Your task to perform on an android device: Open battery settings Image 0: 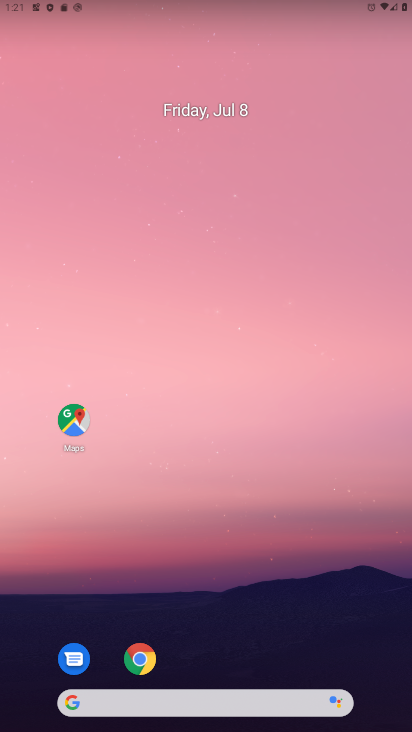
Step 0: drag from (275, 554) to (205, 131)
Your task to perform on an android device: Open battery settings Image 1: 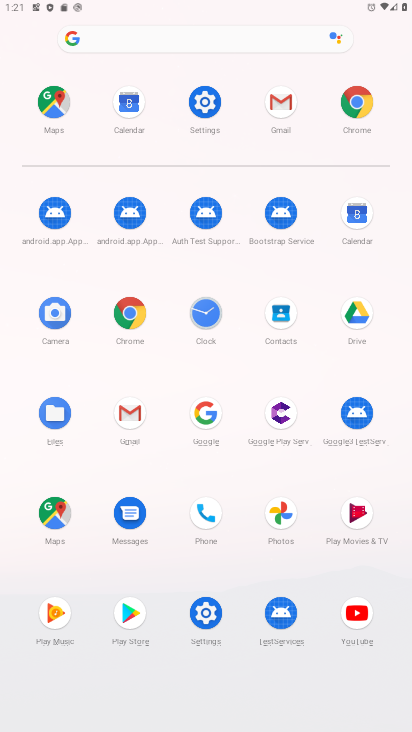
Step 1: click (205, 98)
Your task to perform on an android device: Open battery settings Image 2: 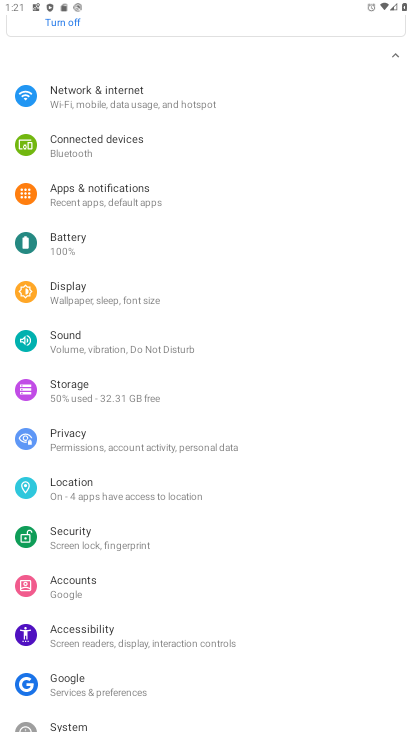
Step 2: click (68, 240)
Your task to perform on an android device: Open battery settings Image 3: 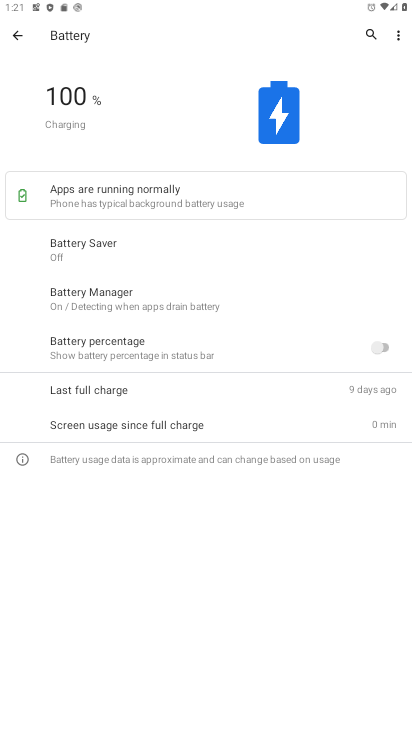
Step 3: task complete